Your task to perform on an android device: turn on sleep mode Image 0: 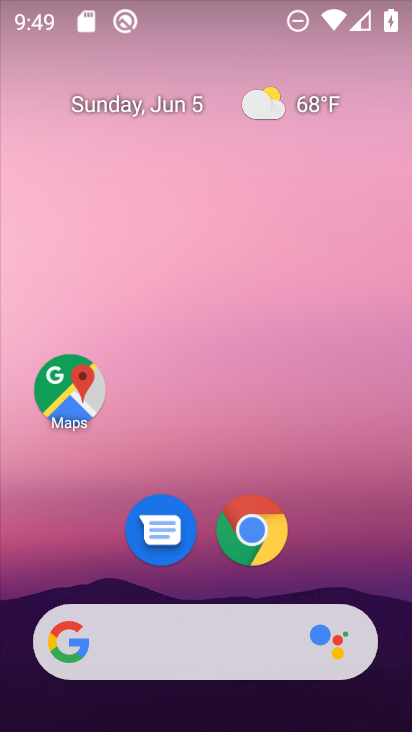
Step 0: drag from (387, 620) to (325, 28)
Your task to perform on an android device: turn on sleep mode Image 1: 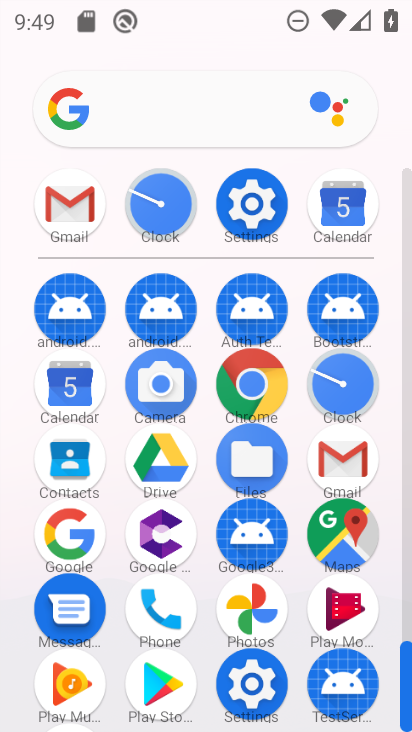
Step 1: click (249, 683)
Your task to perform on an android device: turn on sleep mode Image 2: 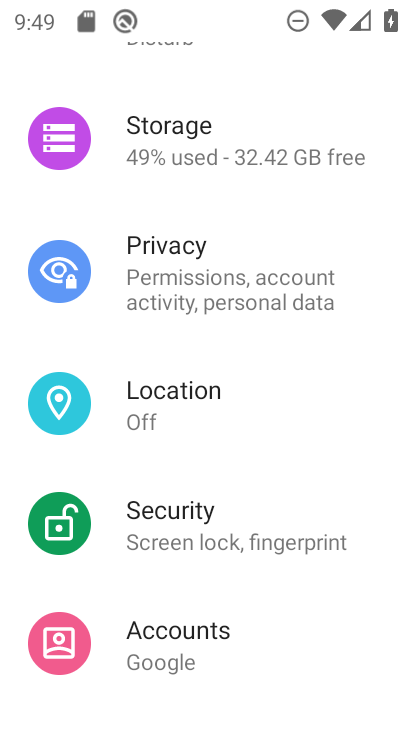
Step 2: drag from (279, 586) to (269, 642)
Your task to perform on an android device: turn on sleep mode Image 3: 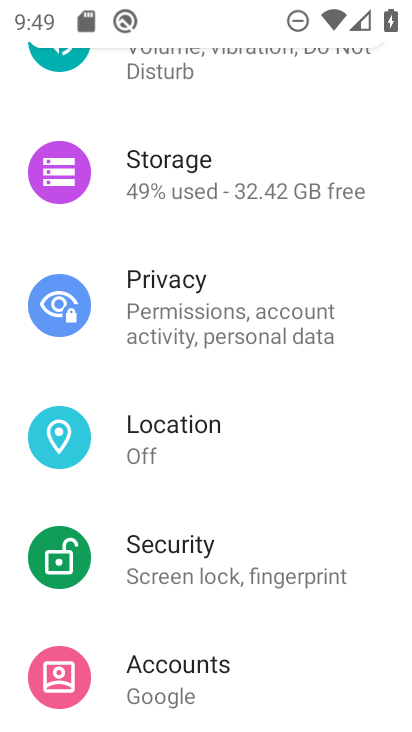
Step 3: drag from (337, 172) to (307, 486)
Your task to perform on an android device: turn on sleep mode Image 4: 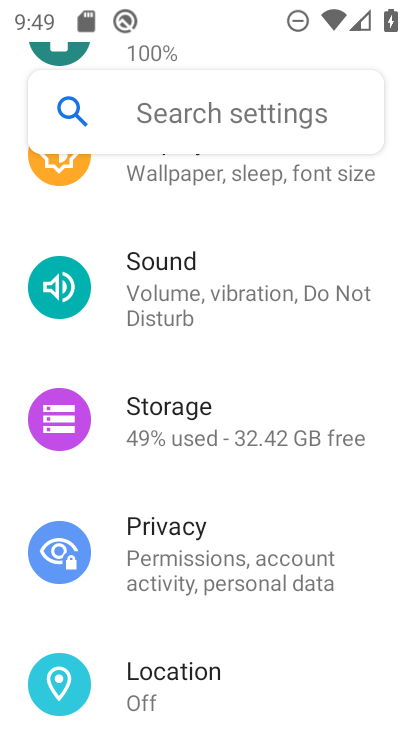
Step 4: drag from (359, 302) to (320, 614)
Your task to perform on an android device: turn on sleep mode Image 5: 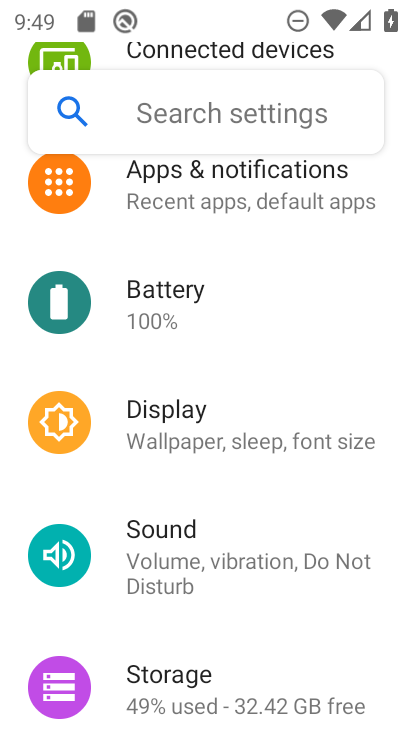
Step 5: click (195, 420)
Your task to perform on an android device: turn on sleep mode Image 6: 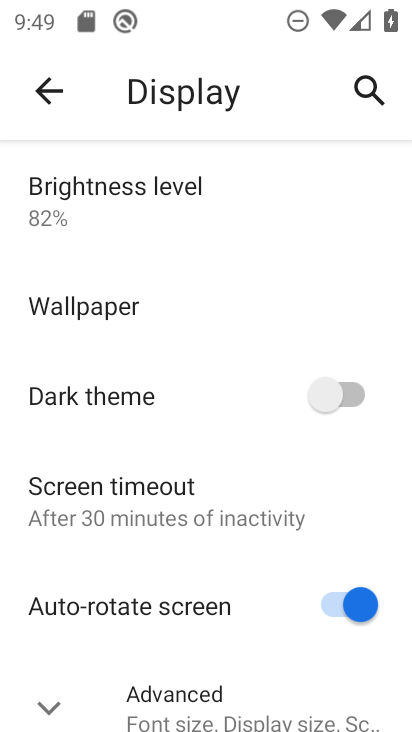
Step 6: drag from (103, 669) to (156, 290)
Your task to perform on an android device: turn on sleep mode Image 7: 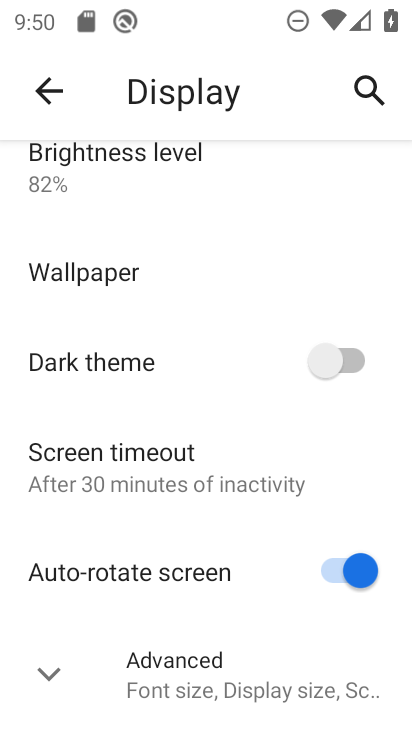
Step 7: click (46, 675)
Your task to perform on an android device: turn on sleep mode Image 8: 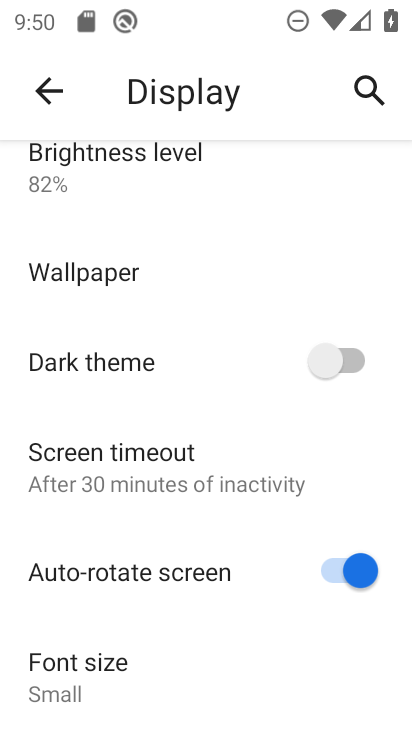
Step 8: task complete